Your task to perform on an android device: Search for the best lawnmowers on Lowes.com Image 0: 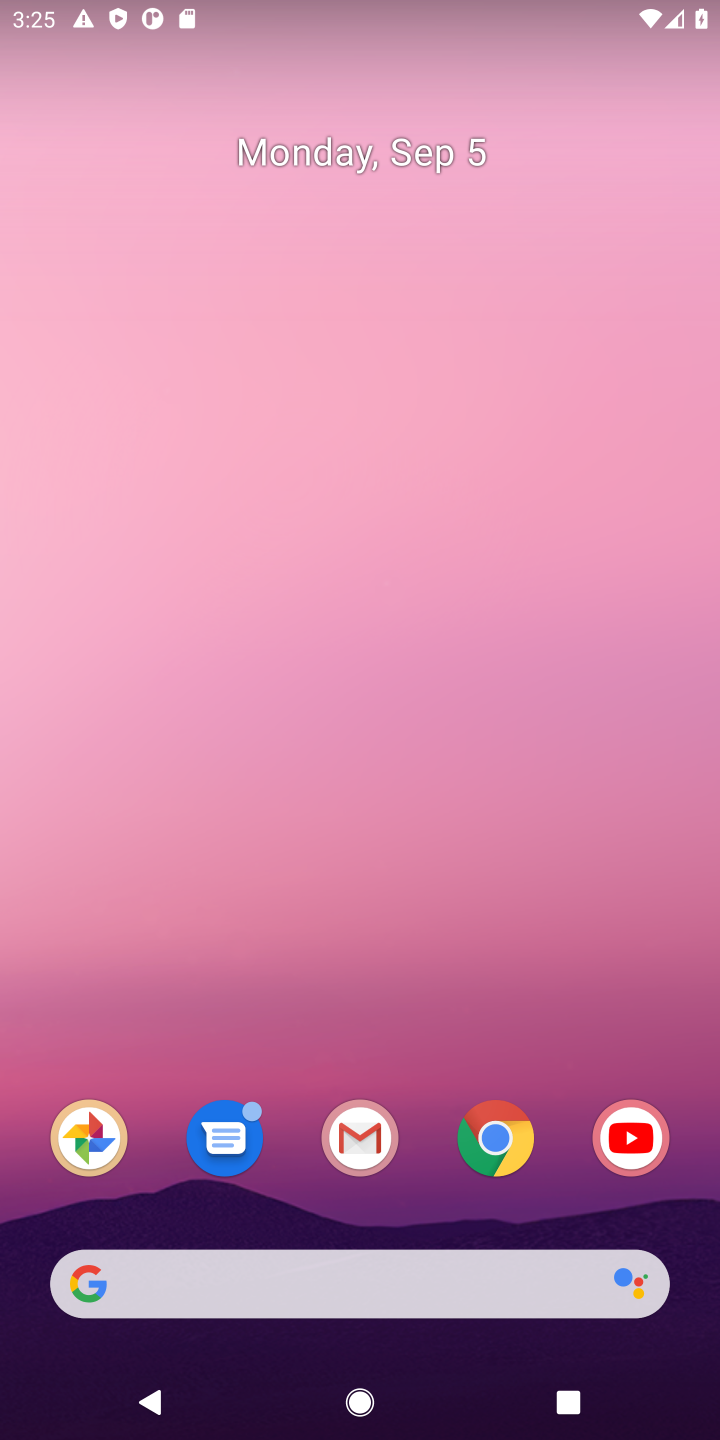
Step 0: click (495, 1141)
Your task to perform on an android device: Search for the best lawnmowers on Lowes.com Image 1: 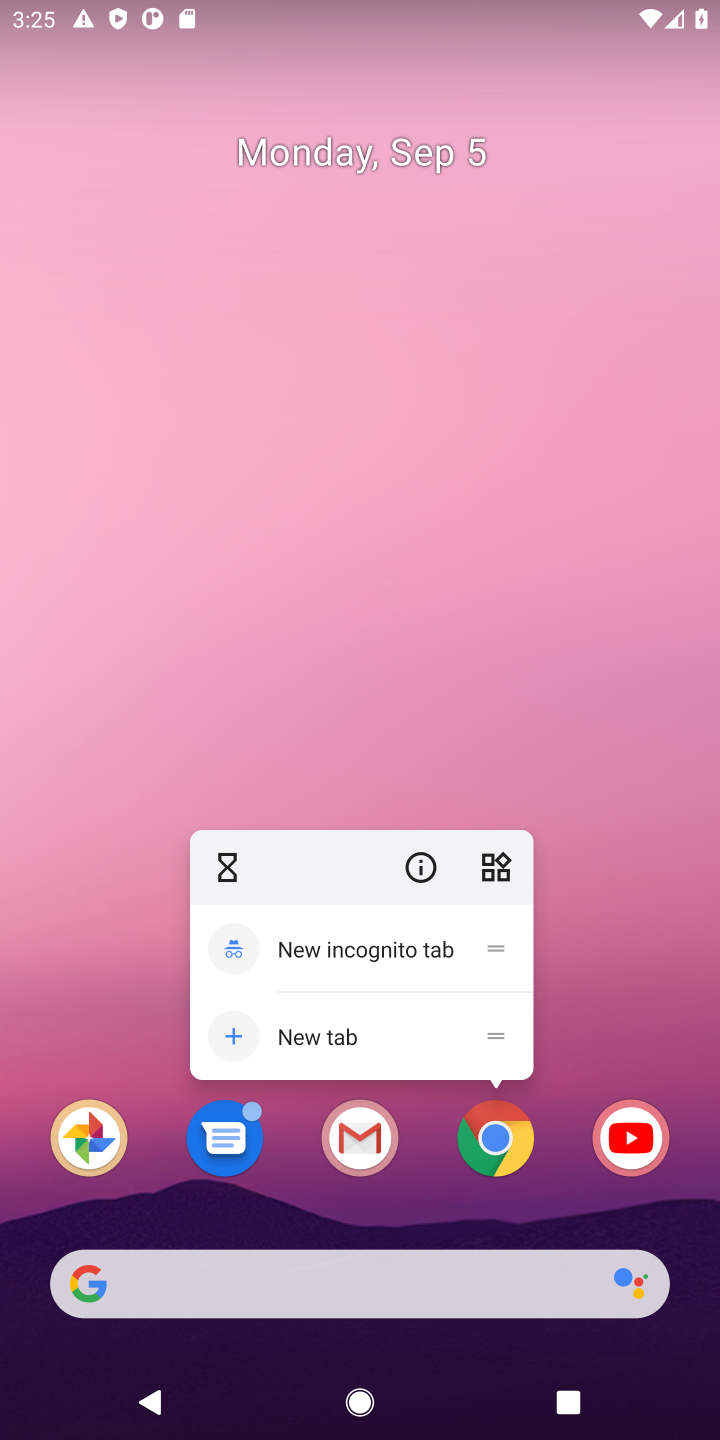
Step 1: click (495, 1141)
Your task to perform on an android device: Search for the best lawnmowers on Lowes.com Image 2: 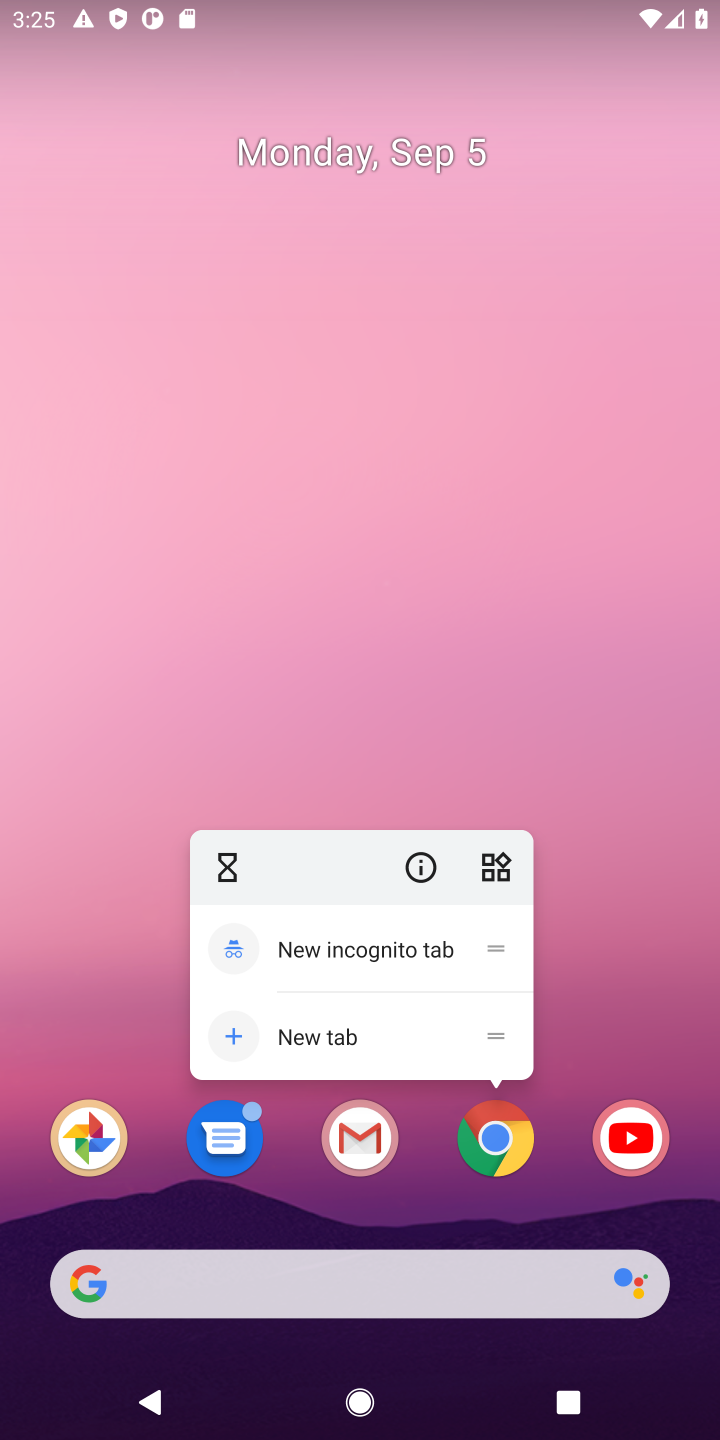
Step 2: click (500, 1138)
Your task to perform on an android device: Search for the best lawnmowers on Lowes.com Image 3: 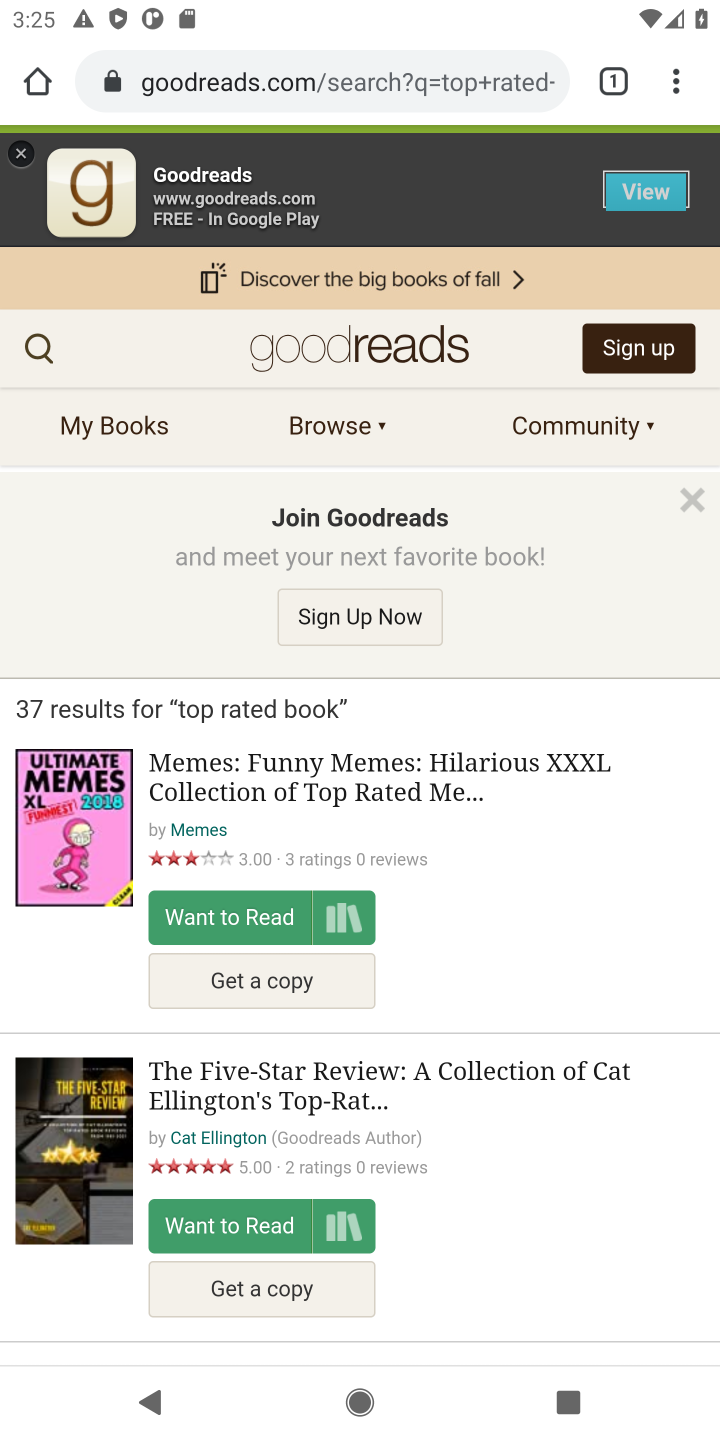
Step 3: click (457, 73)
Your task to perform on an android device: Search for the best lawnmowers on Lowes.com Image 4: 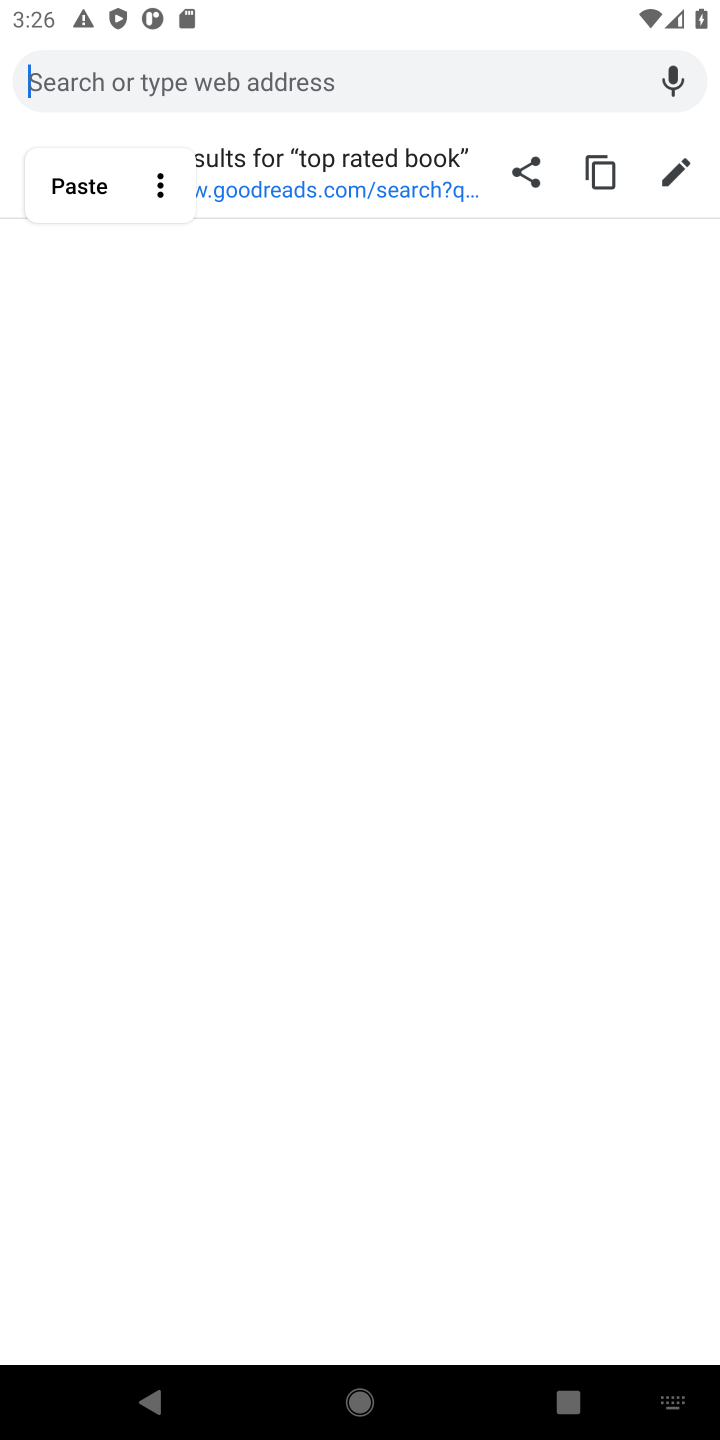
Step 4: type "Lowes.com"
Your task to perform on an android device: Search for the best lawnmowers on Lowes.com Image 5: 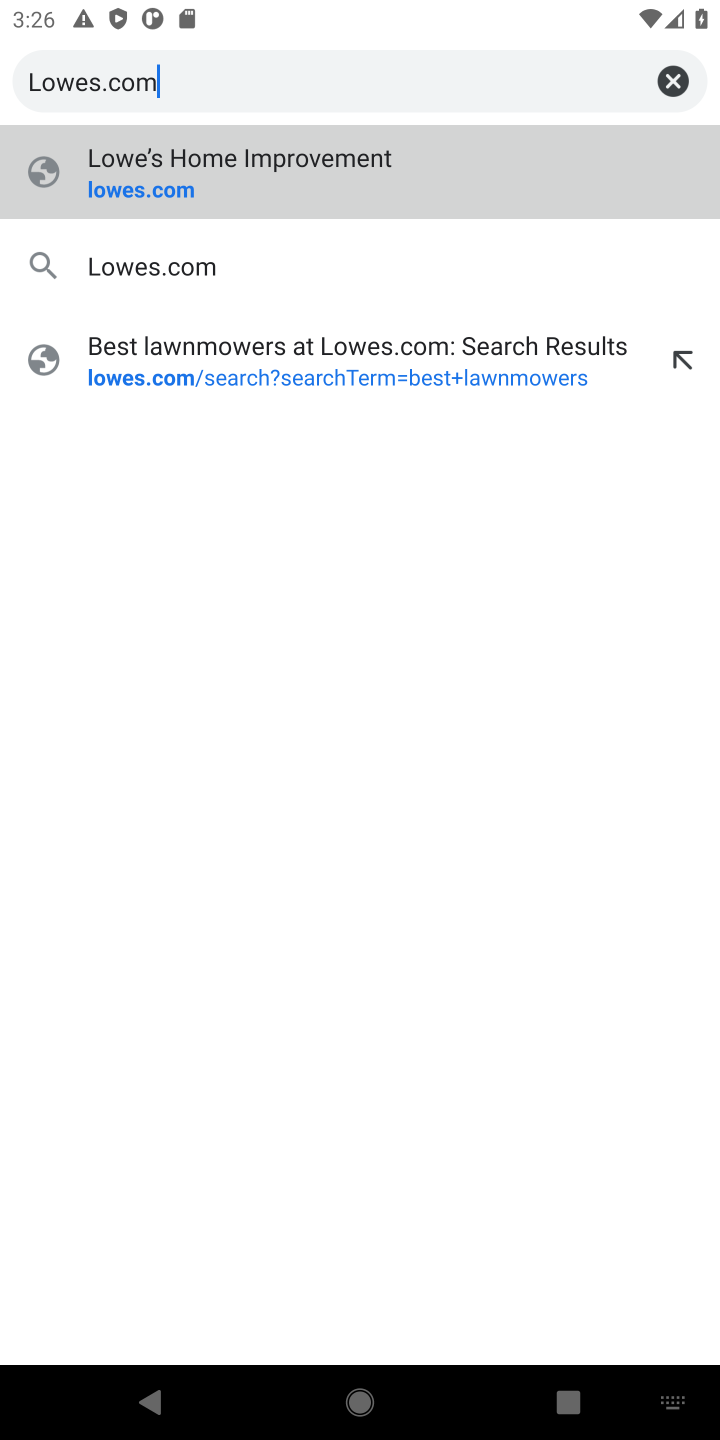
Step 5: click (206, 277)
Your task to perform on an android device: Search for the best lawnmowers on Lowes.com Image 6: 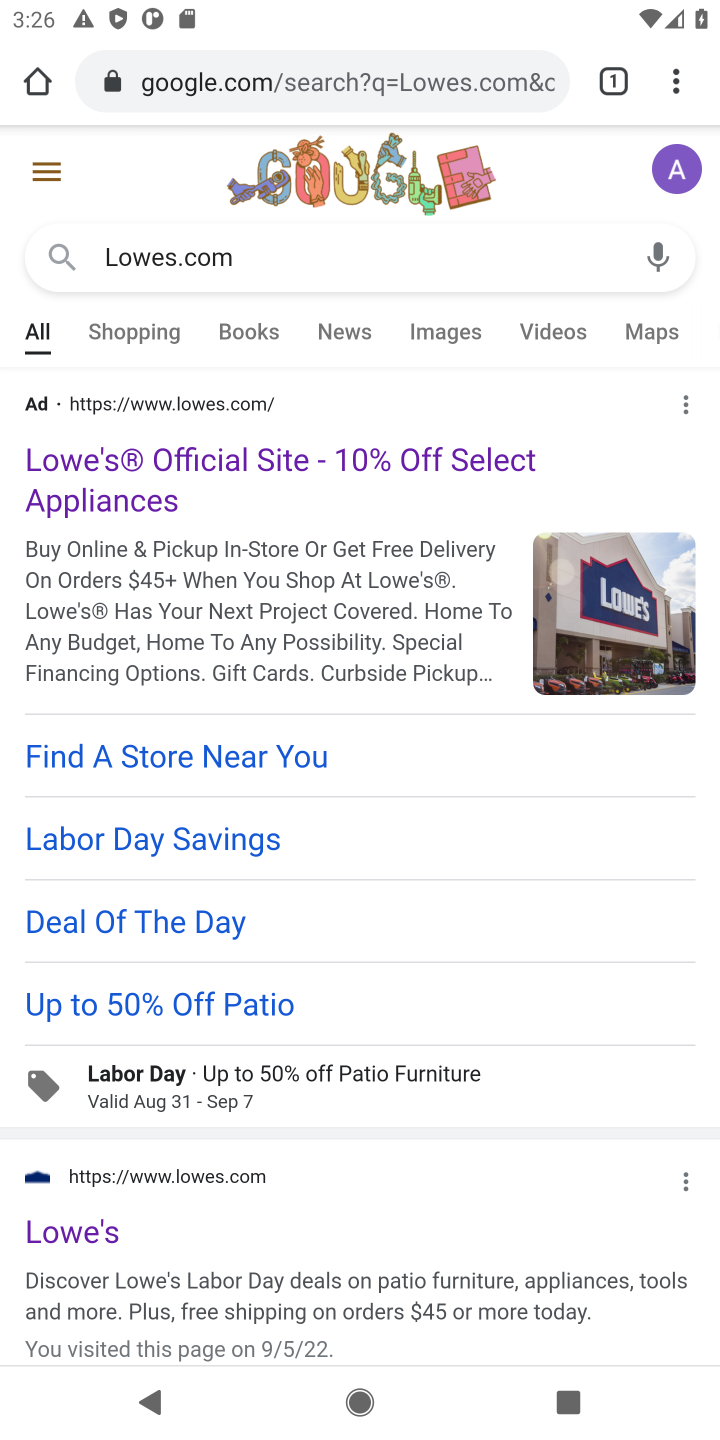
Step 6: click (127, 1237)
Your task to perform on an android device: Search for the best lawnmowers on Lowes.com Image 7: 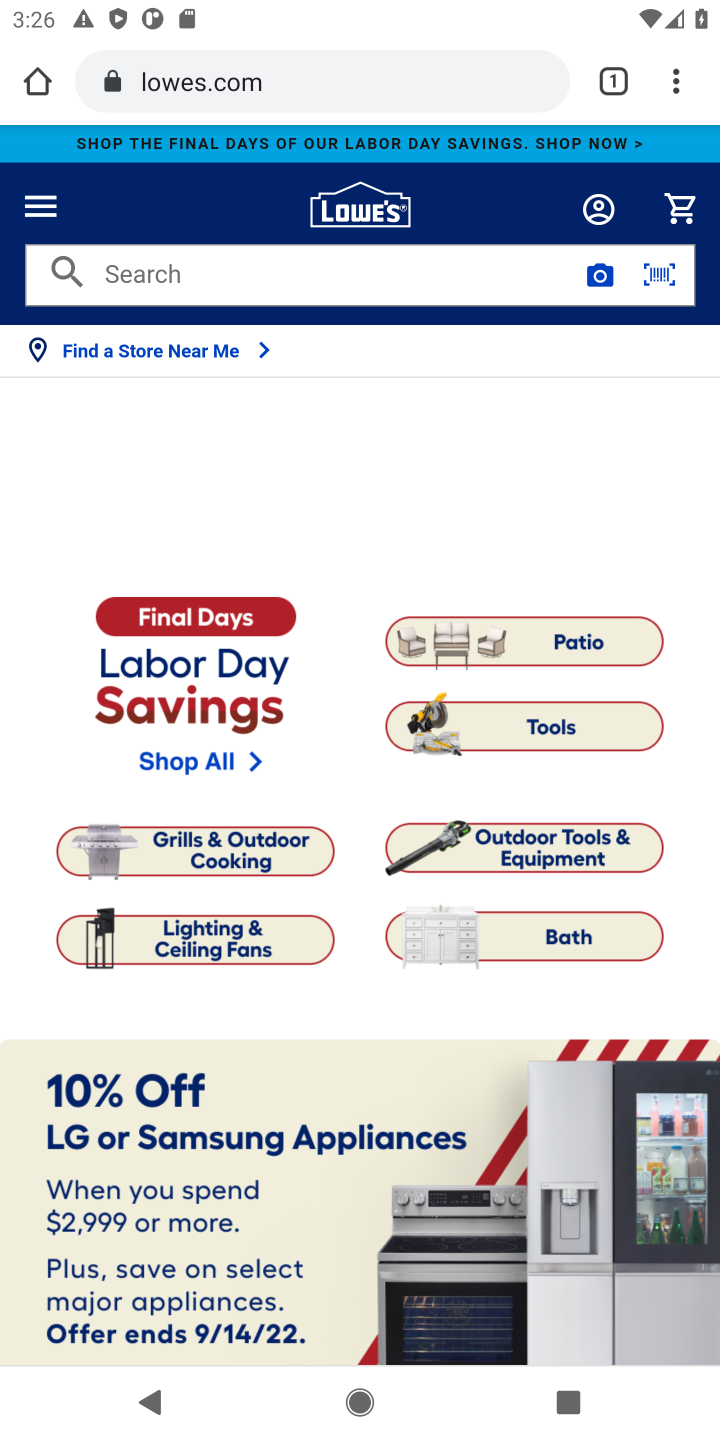
Step 7: click (229, 275)
Your task to perform on an android device: Search for the best lawnmowers on Lowes.com Image 8: 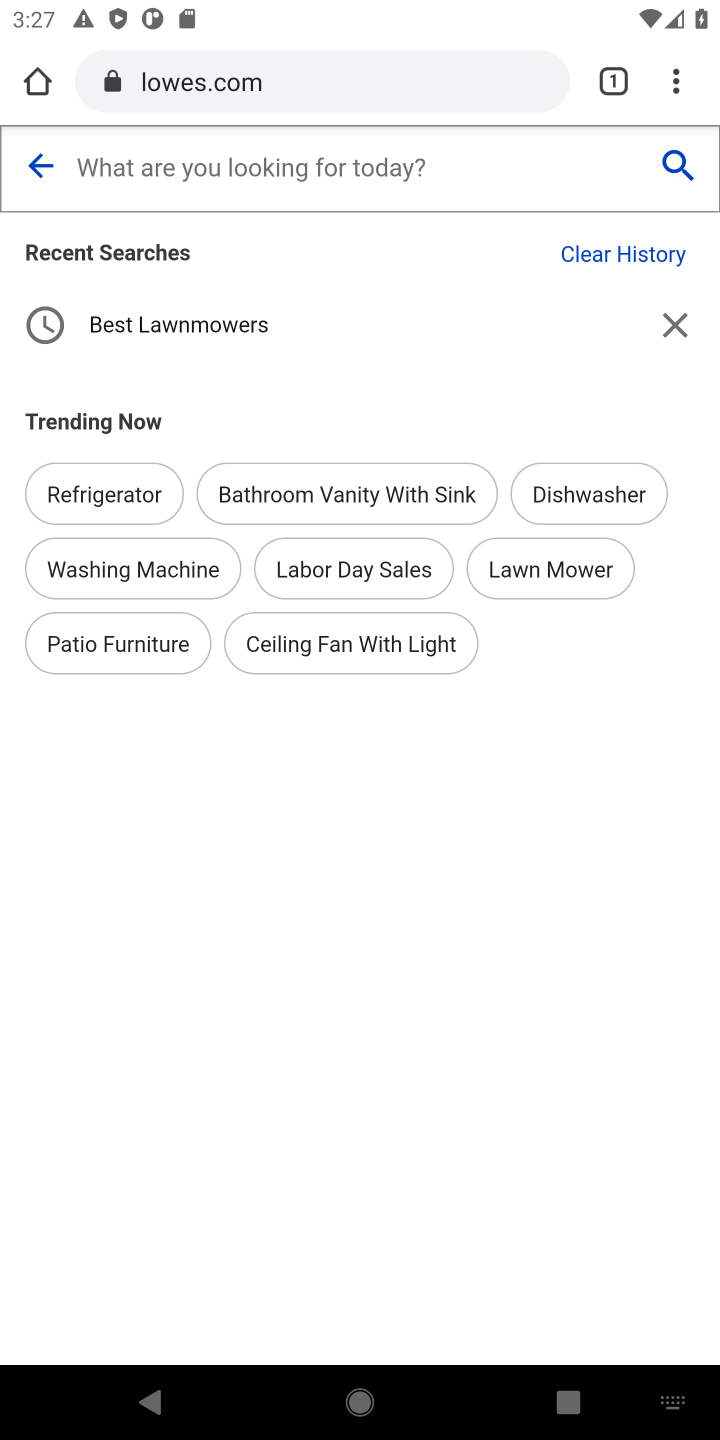
Step 8: type "best lawnmowers"
Your task to perform on an android device: Search for the best lawnmowers on Lowes.com Image 9: 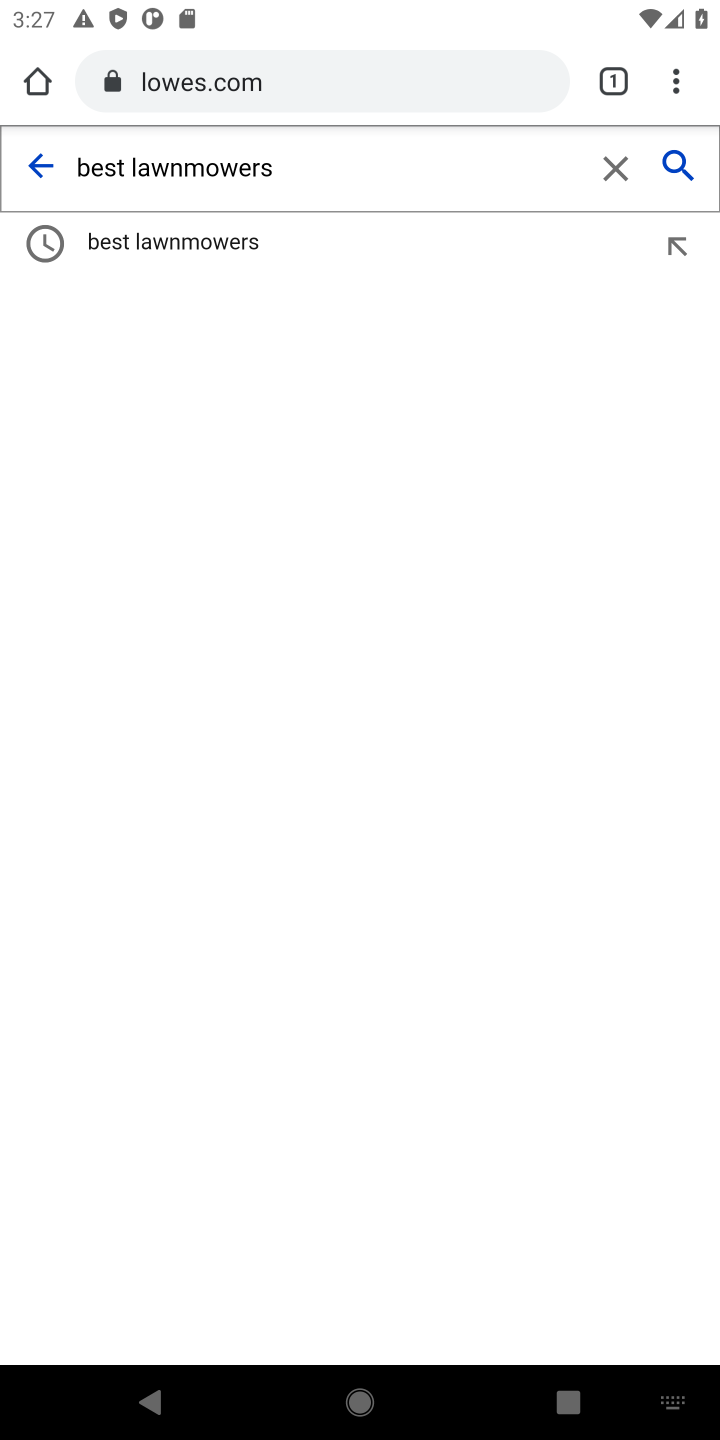
Step 9: click (245, 250)
Your task to perform on an android device: Search for the best lawnmowers on Lowes.com Image 10: 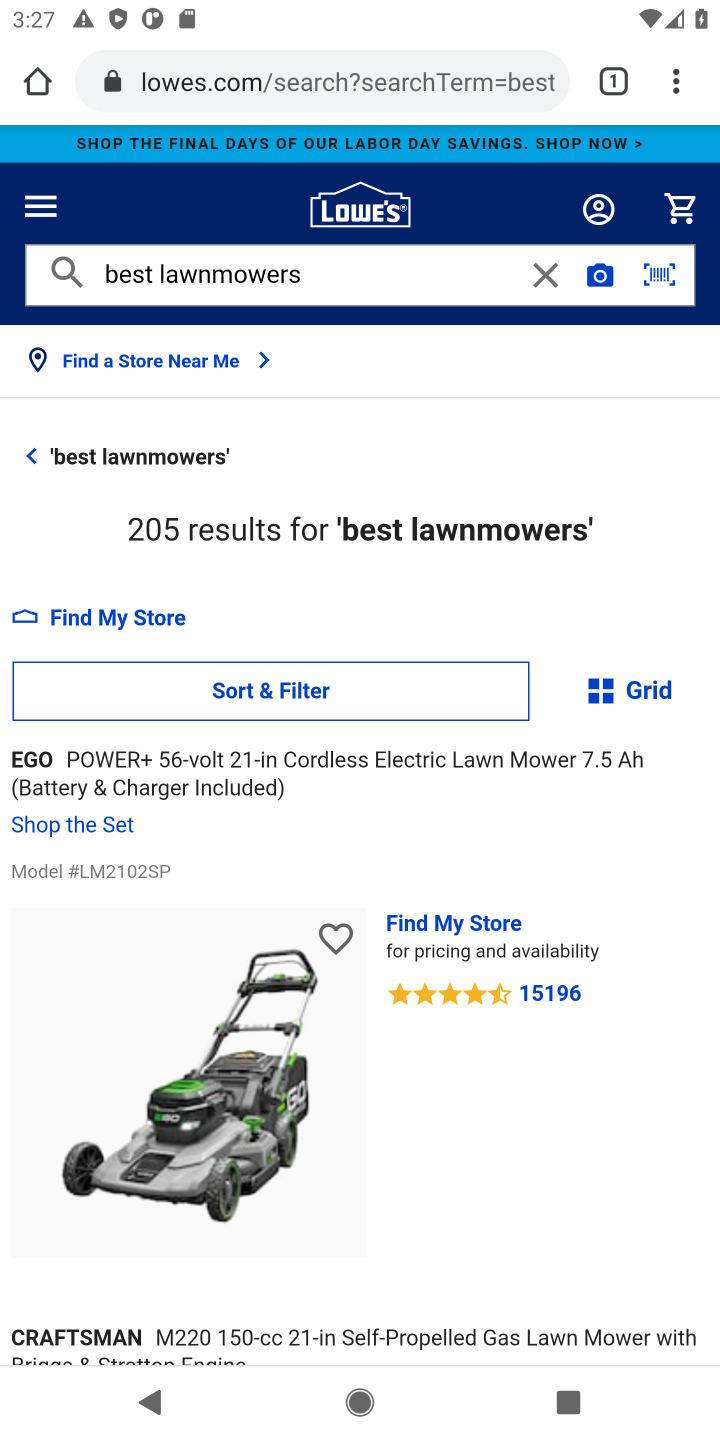
Step 10: task complete